Your task to perform on an android device: Go to Wikipedia Image 0: 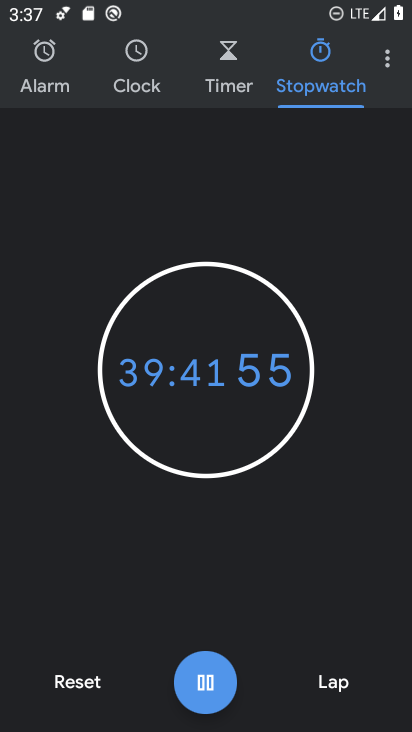
Step 0: press home button
Your task to perform on an android device: Go to Wikipedia Image 1: 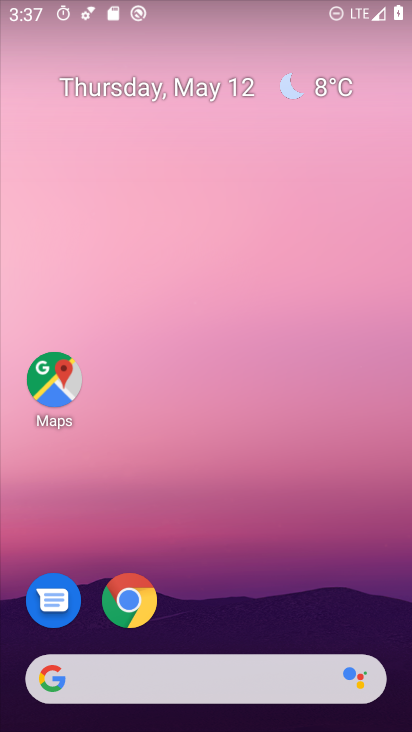
Step 1: click (126, 598)
Your task to perform on an android device: Go to Wikipedia Image 2: 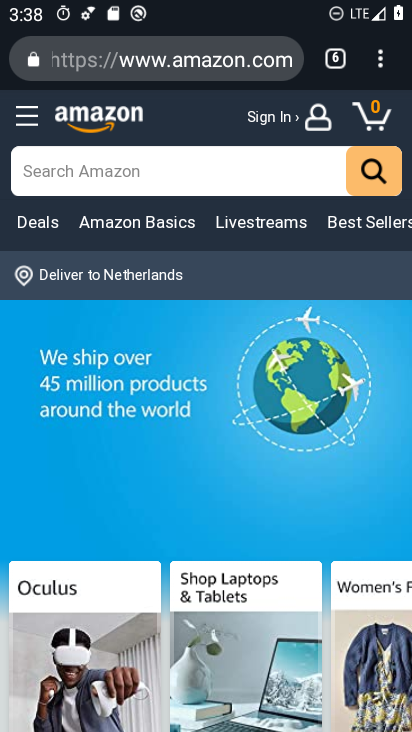
Step 2: click (379, 65)
Your task to perform on an android device: Go to Wikipedia Image 3: 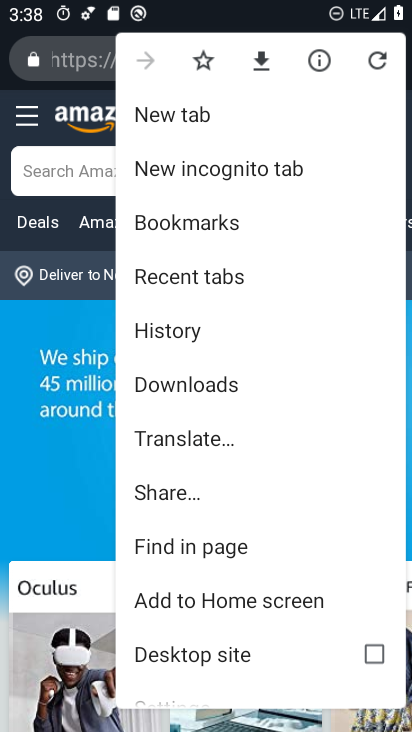
Step 3: click (186, 119)
Your task to perform on an android device: Go to Wikipedia Image 4: 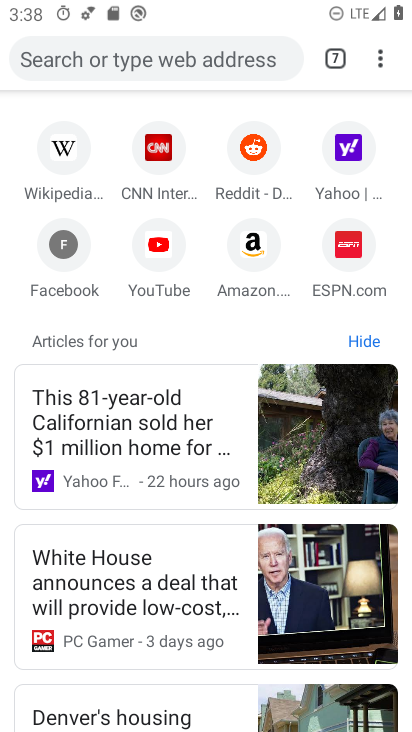
Step 4: click (55, 152)
Your task to perform on an android device: Go to Wikipedia Image 5: 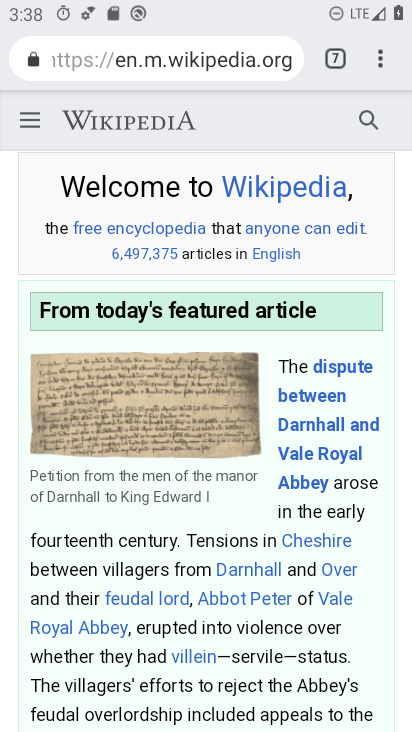
Step 5: task complete